Your task to perform on an android device: set the timer Image 0: 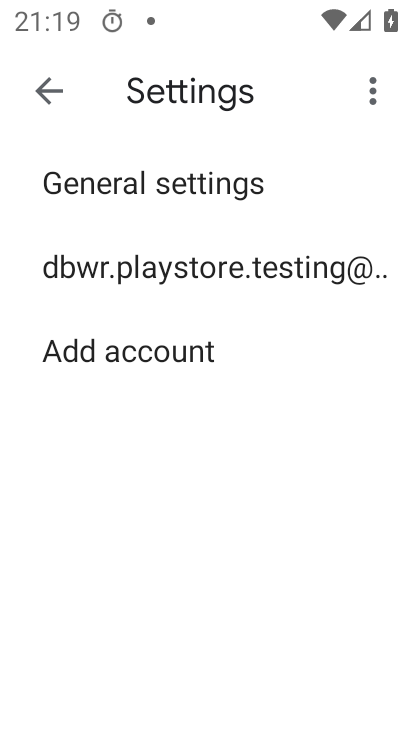
Step 0: press home button
Your task to perform on an android device: set the timer Image 1: 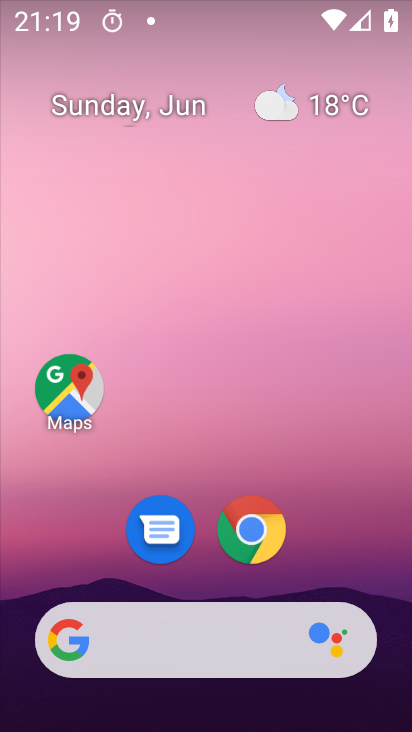
Step 1: drag from (362, 568) to (355, 24)
Your task to perform on an android device: set the timer Image 2: 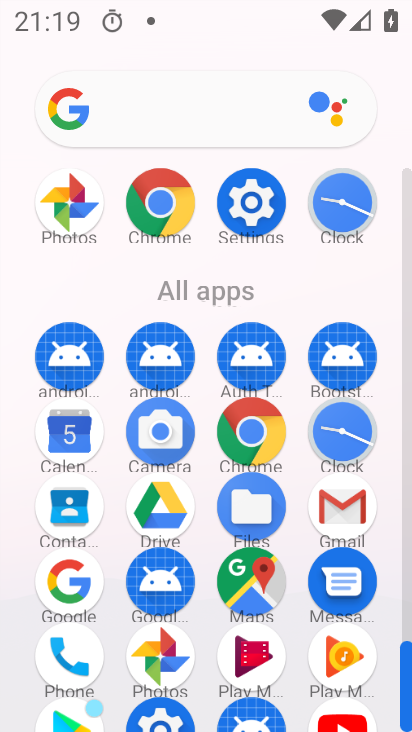
Step 2: click (347, 434)
Your task to perform on an android device: set the timer Image 3: 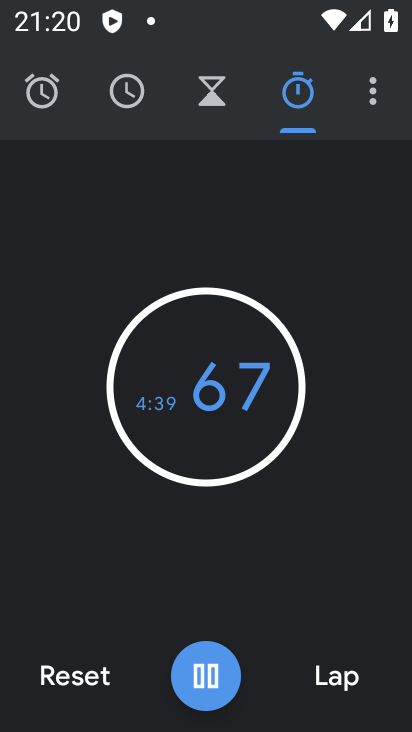
Step 3: click (210, 85)
Your task to perform on an android device: set the timer Image 4: 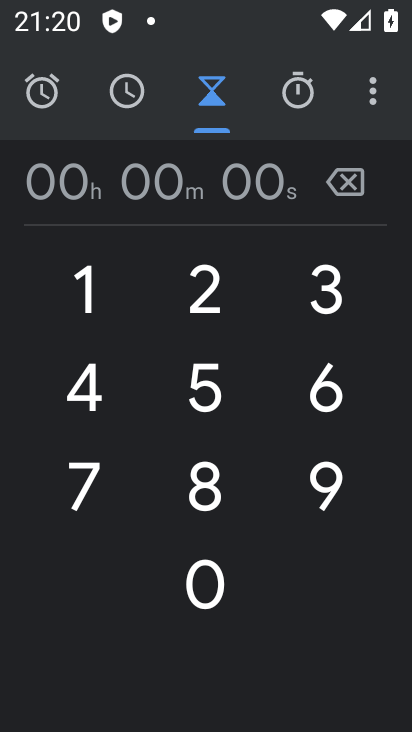
Step 4: click (124, 286)
Your task to perform on an android device: set the timer Image 5: 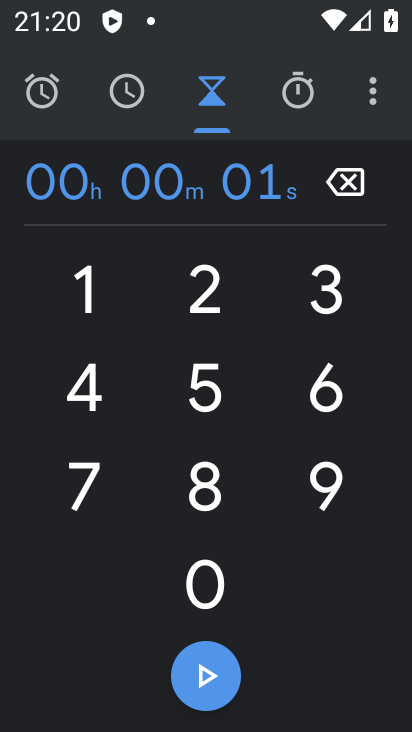
Step 5: click (125, 284)
Your task to perform on an android device: set the timer Image 6: 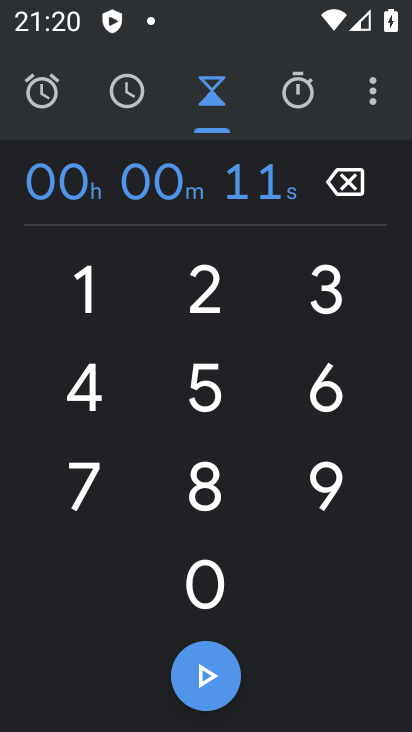
Step 6: click (125, 281)
Your task to perform on an android device: set the timer Image 7: 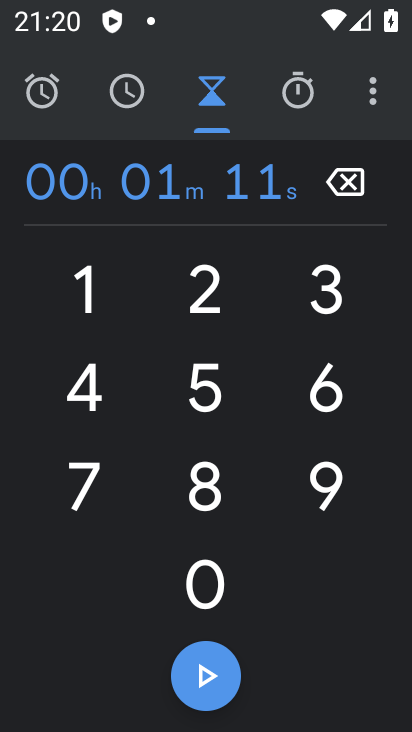
Step 7: click (125, 281)
Your task to perform on an android device: set the timer Image 8: 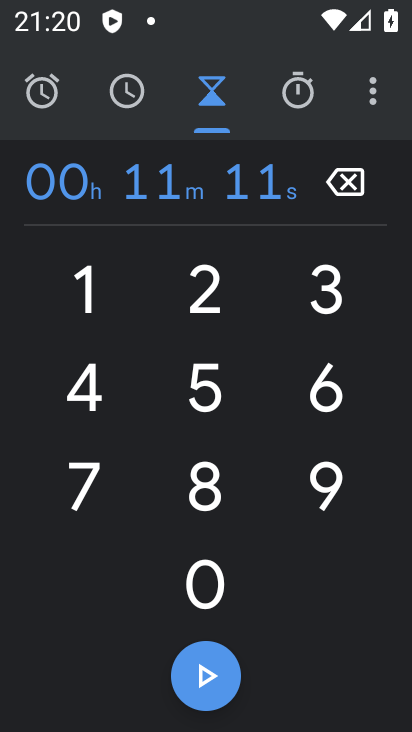
Step 8: click (125, 281)
Your task to perform on an android device: set the timer Image 9: 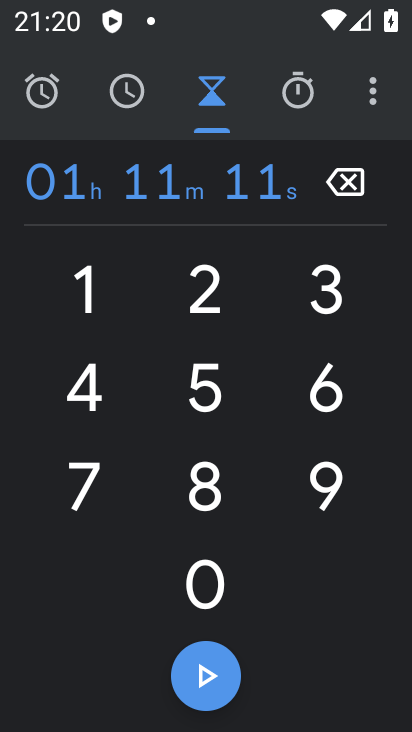
Step 9: click (125, 281)
Your task to perform on an android device: set the timer Image 10: 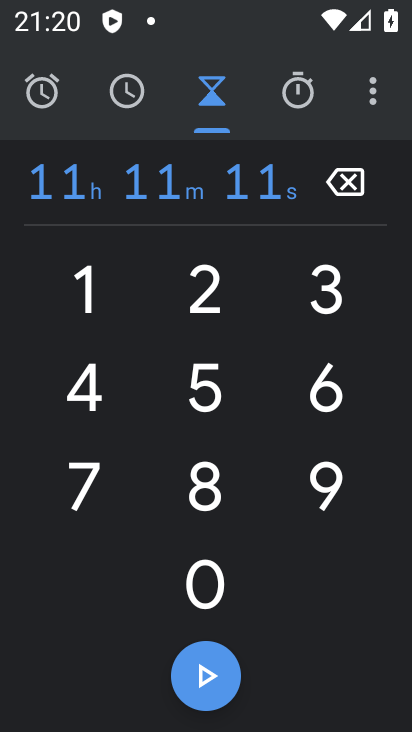
Step 10: click (223, 671)
Your task to perform on an android device: set the timer Image 11: 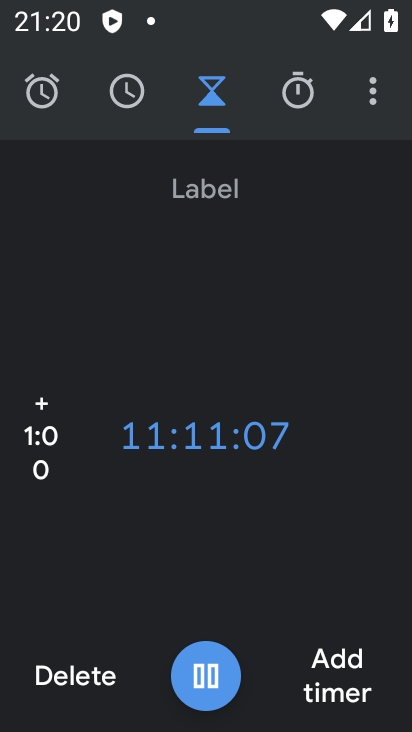
Step 11: task complete